Your task to perform on an android device: change notification settings in the gmail app Image 0: 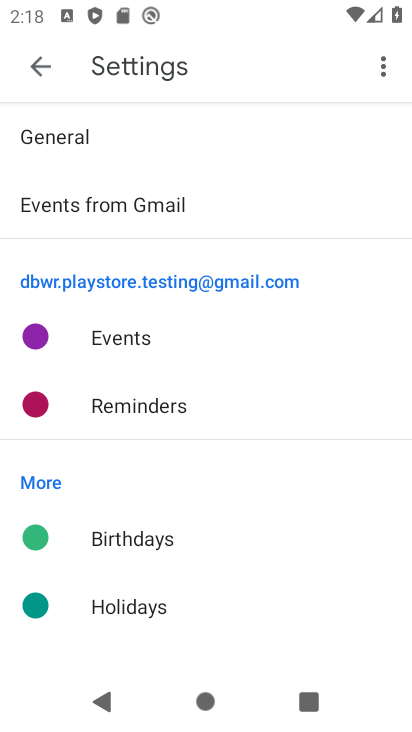
Step 0: press home button
Your task to perform on an android device: change notification settings in the gmail app Image 1: 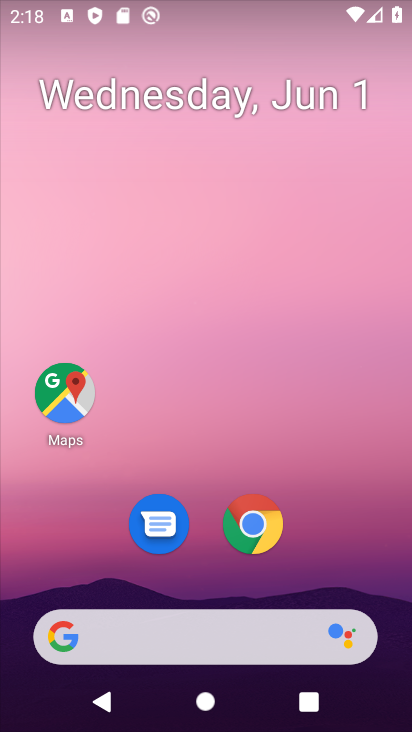
Step 1: drag from (334, 554) to (274, 56)
Your task to perform on an android device: change notification settings in the gmail app Image 2: 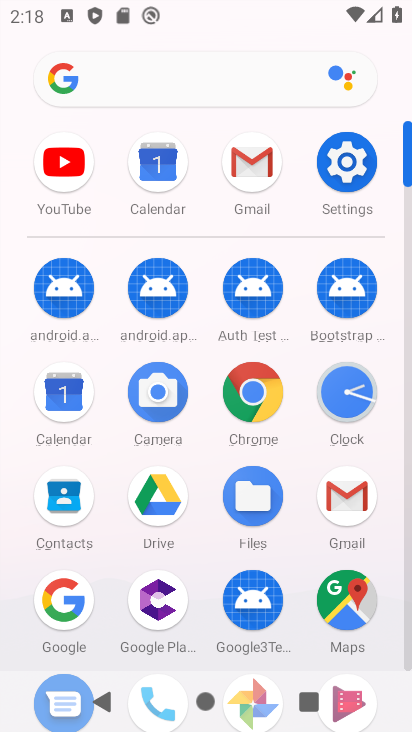
Step 2: click (264, 169)
Your task to perform on an android device: change notification settings in the gmail app Image 3: 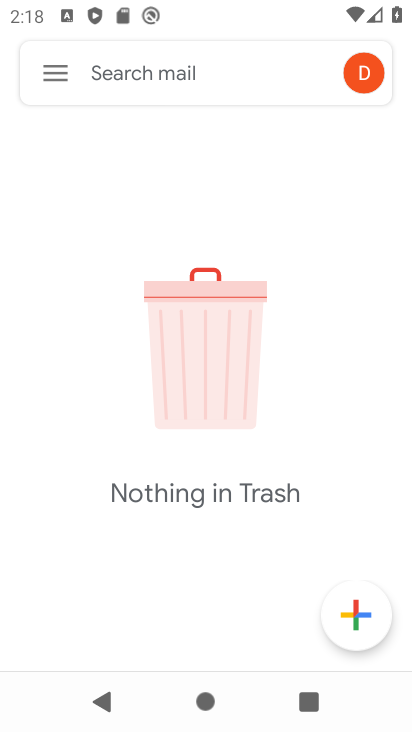
Step 3: click (65, 71)
Your task to perform on an android device: change notification settings in the gmail app Image 4: 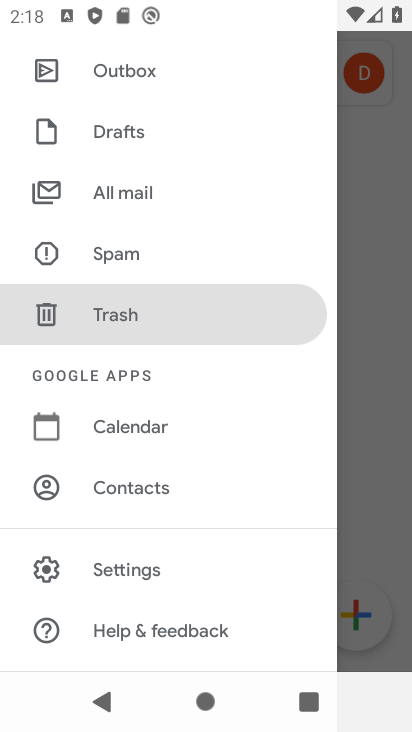
Step 4: click (180, 569)
Your task to perform on an android device: change notification settings in the gmail app Image 5: 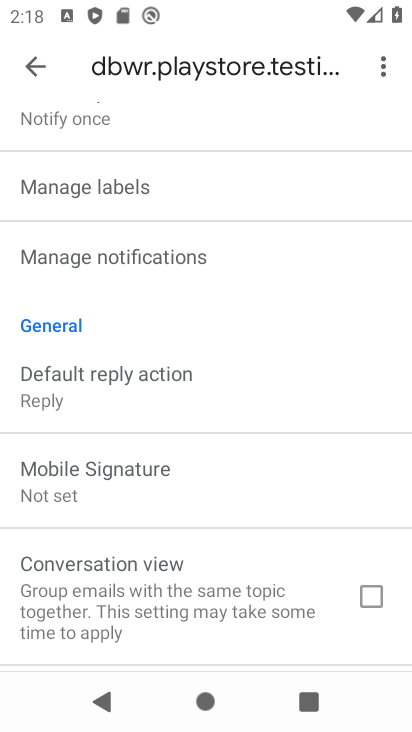
Step 5: click (202, 254)
Your task to perform on an android device: change notification settings in the gmail app Image 6: 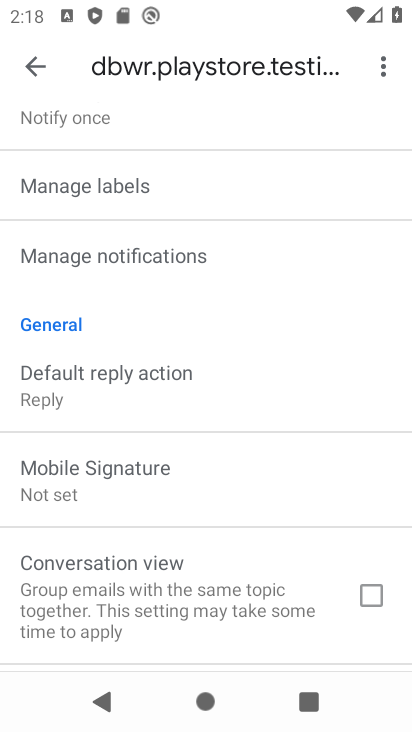
Step 6: click (202, 243)
Your task to perform on an android device: change notification settings in the gmail app Image 7: 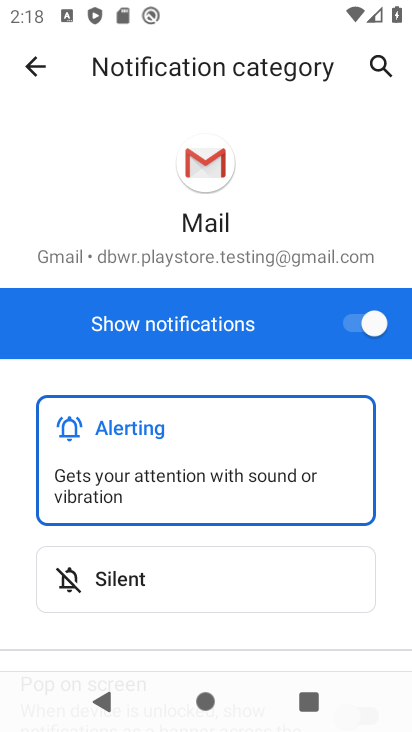
Step 7: click (370, 342)
Your task to perform on an android device: change notification settings in the gmail app Image 8: 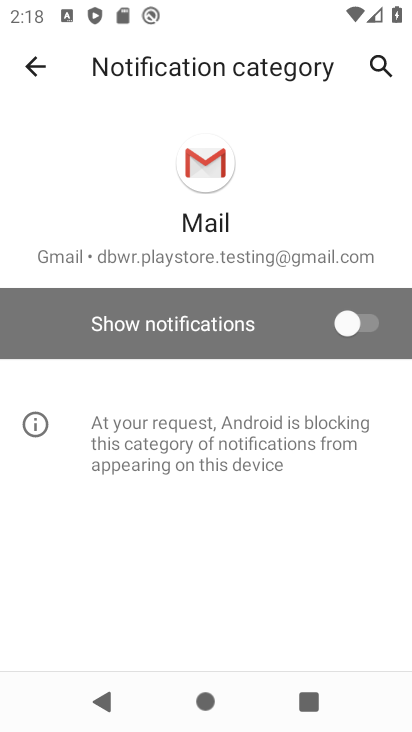
Step 8: task complete